Your task to perform on an android device: Go to location settings Image 0: 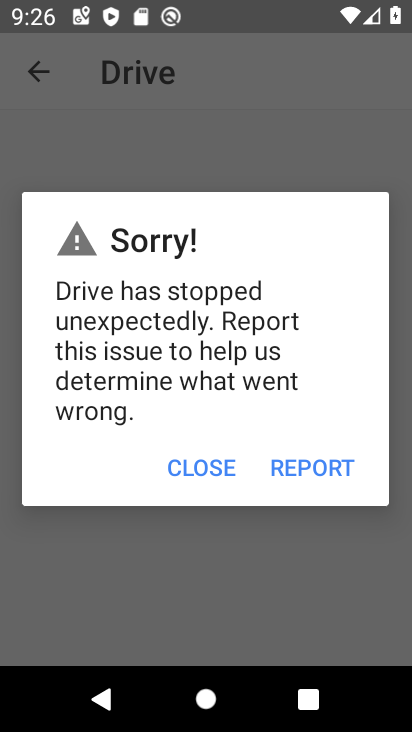
Step 0: press home button
Your task to perform on an android device: Go to location settings Image 1: 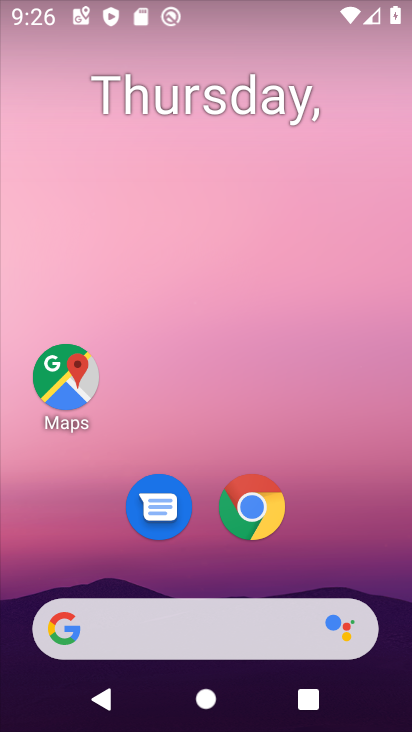
Step 1: drag from (187, 574) to (235, 0)
Your task to perform on an android device: Go to location settings Image 2: 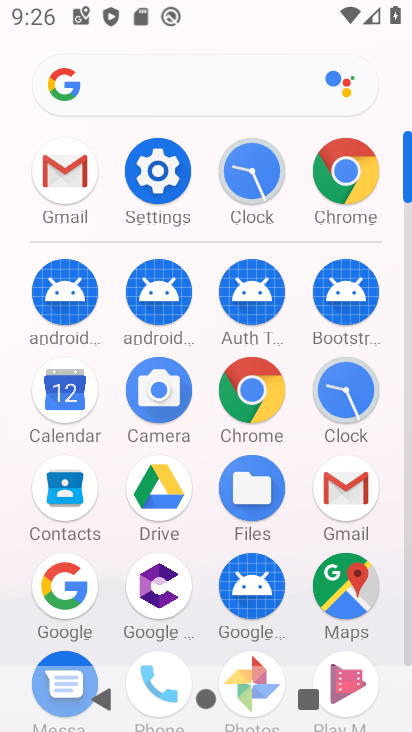
Step 2: click (157, 178)
Your task to perform on an android device: Go to location settings Image 3: 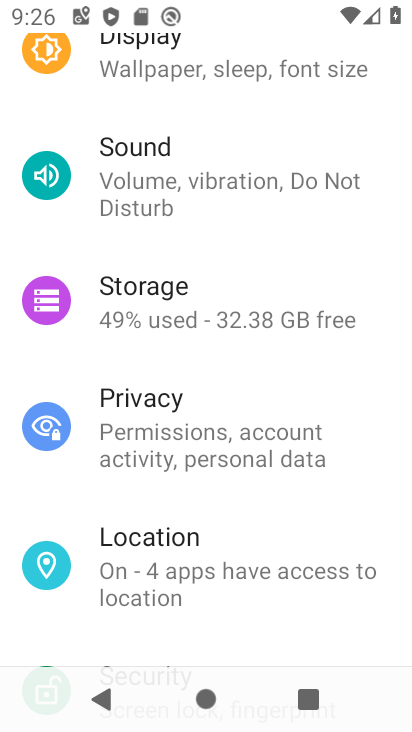
Step 3: click (167, 575)
Your task to perform on an android device: Go to location settings Image 4: 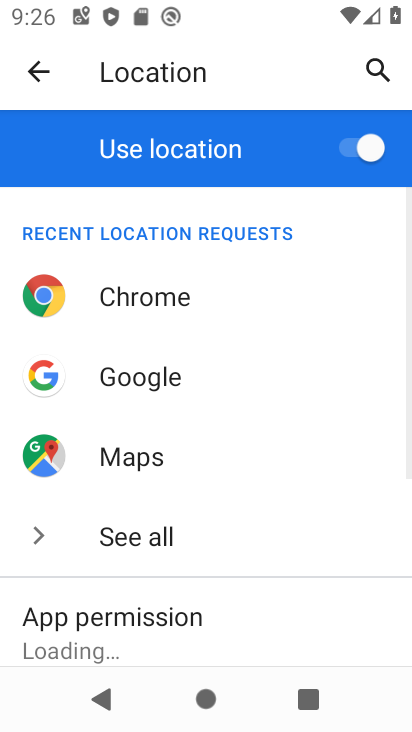
Step 4: task complete